Your task to perform on an android device: change notifications settings Image 0: 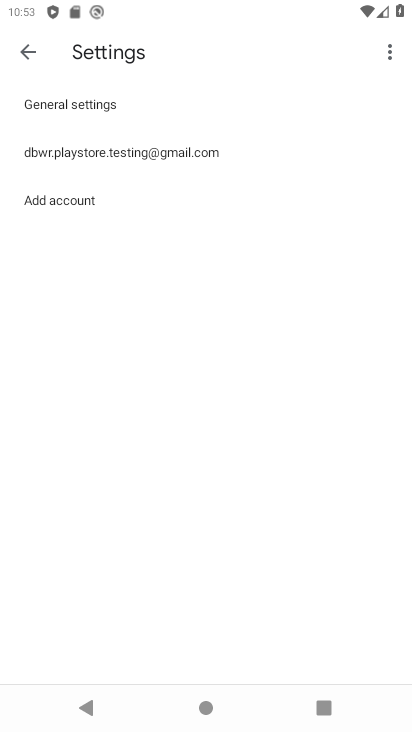
Step 0: press home button
Your task to perform on an android device: change notifications settings Image 1: 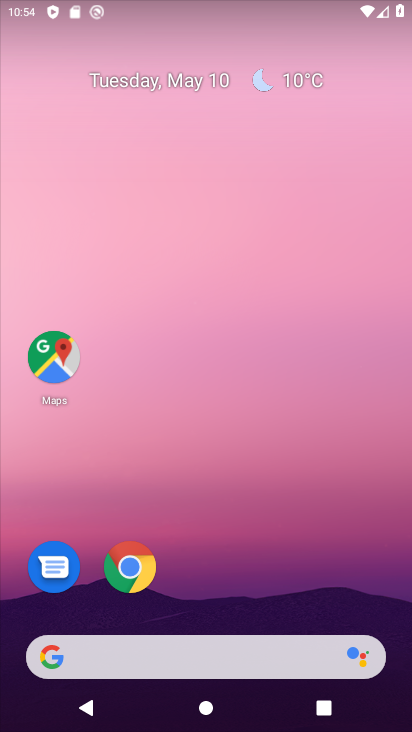
Step 1: drag from (259, 632) to (244, 140)
Your task to perform on an android device: change notifications settings Image 2: 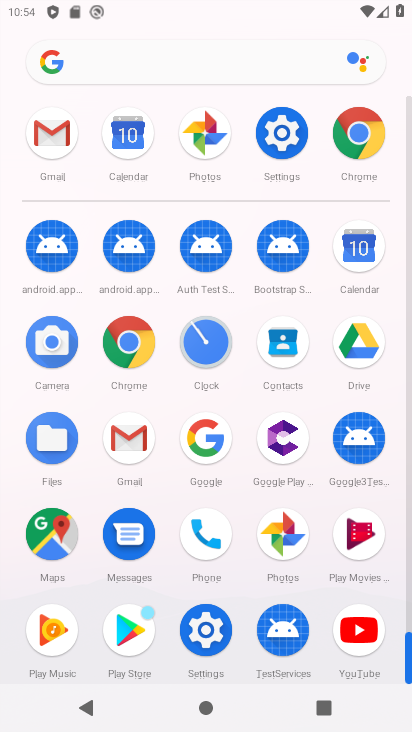
Step 2: click (290, 133)
Your task to perform on an android device: change notifications settings Image 3: 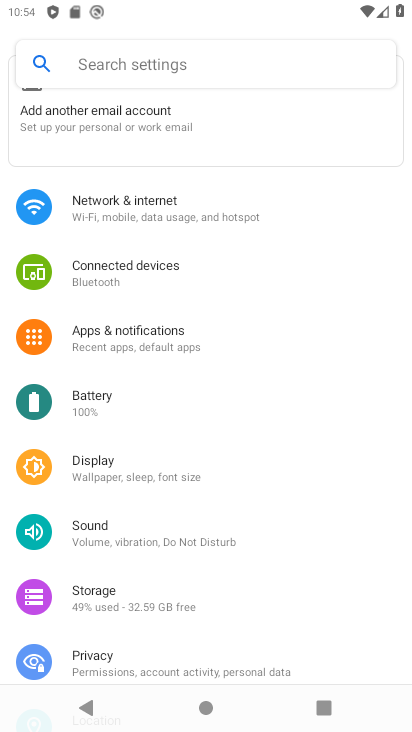
Step 3: click (177, 338)
Your task to perform on an android device: change notifications settings Image 4: 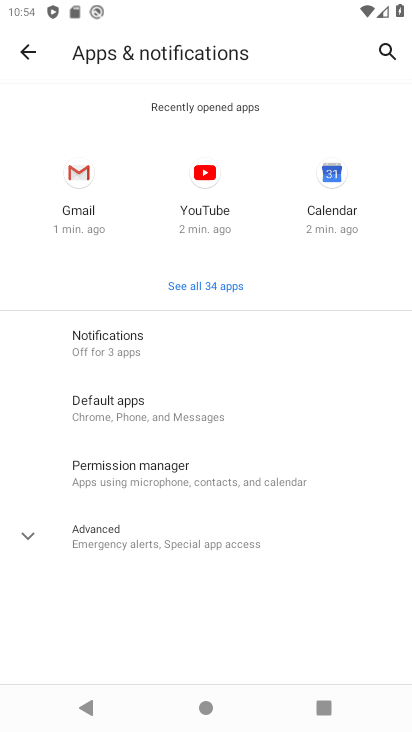
Step 4: task complete